Your task to perform on an android device: toggle data saver in the chrome app Image 0: 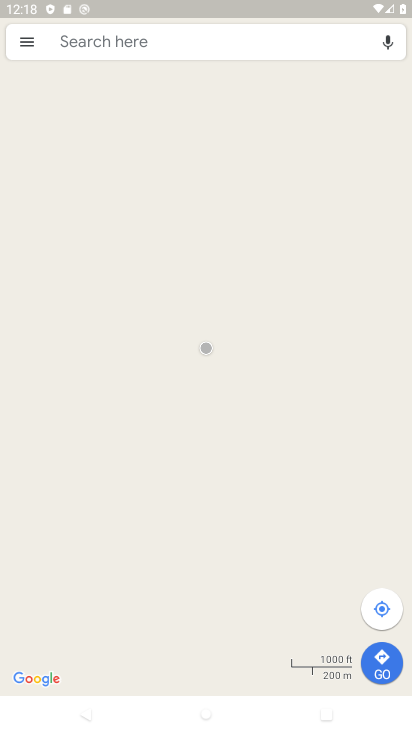
Step 0: press home button
Your task to perform on an android device: toggle data saver in the chrome app Image 1: 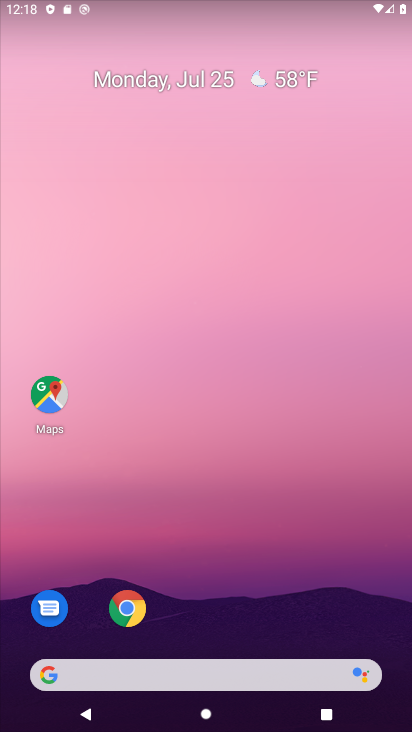
Step 1: drag from (326, 526) to (220, 119)
Your task to perform on an android device: toggle data saver in the chrome app Image 2: 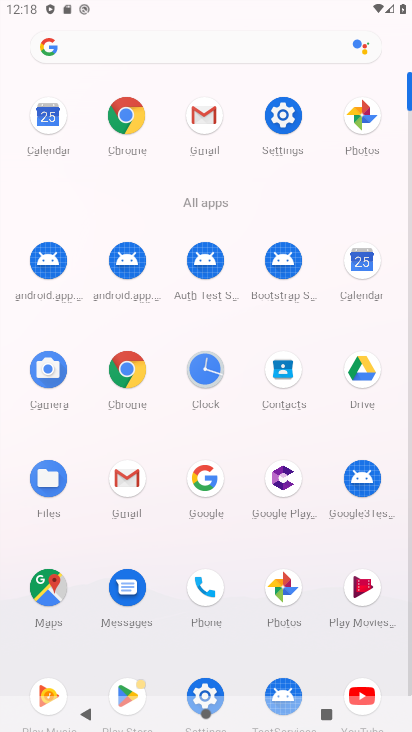
Step 2: click (128, 108)
Your task to perform on an android device: toggle data saver in the chrome app Image 3: 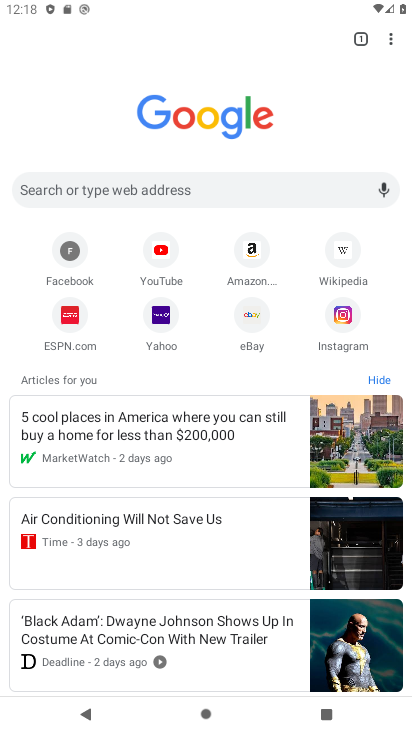
Step 3: drag from (396, 38) to (257, 332)
Your task to perform on an android device: toggle data saver in the chrome app Image 4: 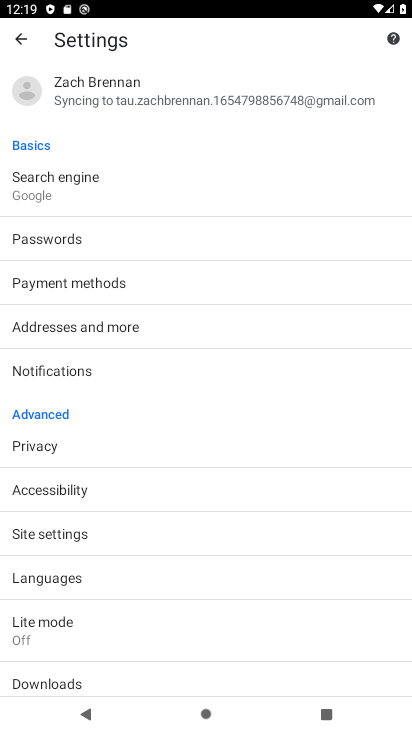
Step 4: click (52, 633)
Your task to perform on an android device: toggle data saver in the chrome app Image 5: 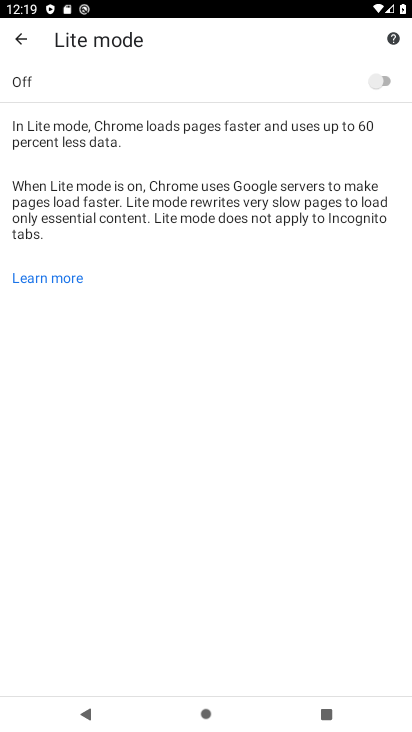
Step 5: click (347, 79)
Your task to perform on an android device: toggle data saver in the chrome app Image 6: 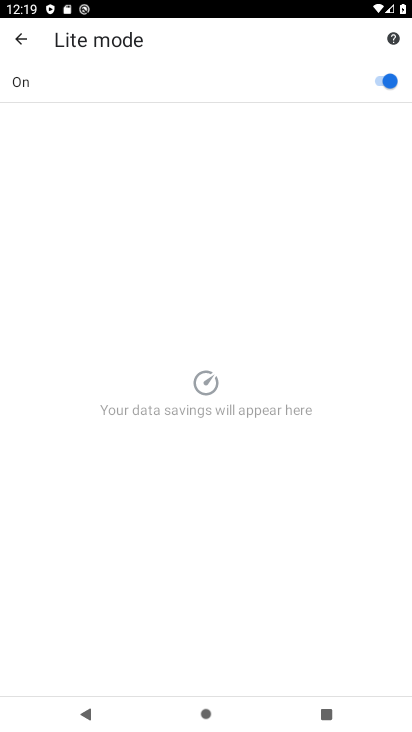
Step 6: task complete